Your task to perform on an android device: toggle notifications settings in the gmail app Image 0: 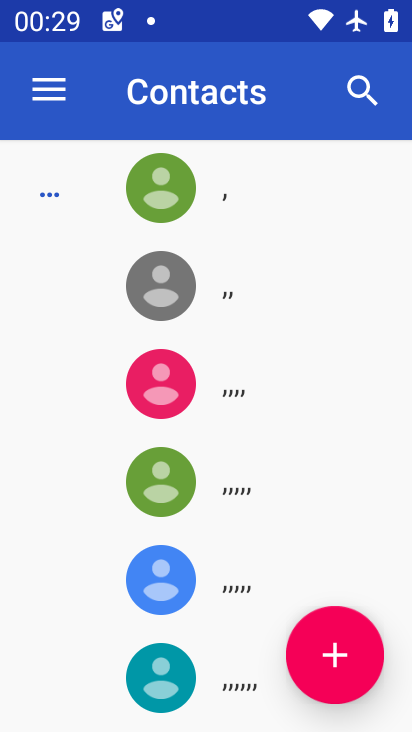
Step 0: press home button
Your task to perform on an android device: toggle notifications settings in the gmail app Image 1: 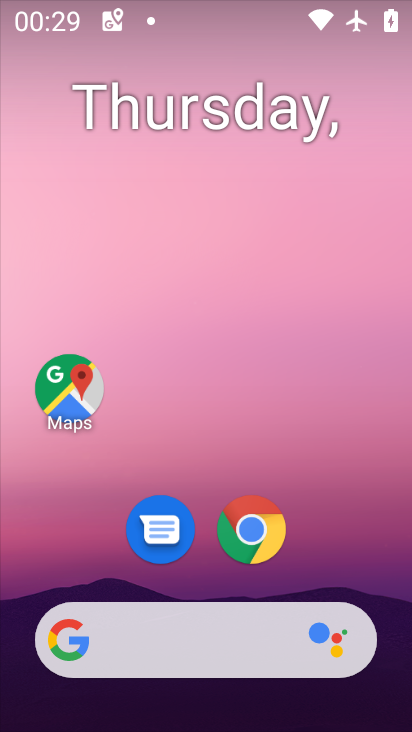
Step 1: drag from (402, 633) to (358, 152)
Your task to perform on an android device: toggle notifications settings in the gmail app Image 2: 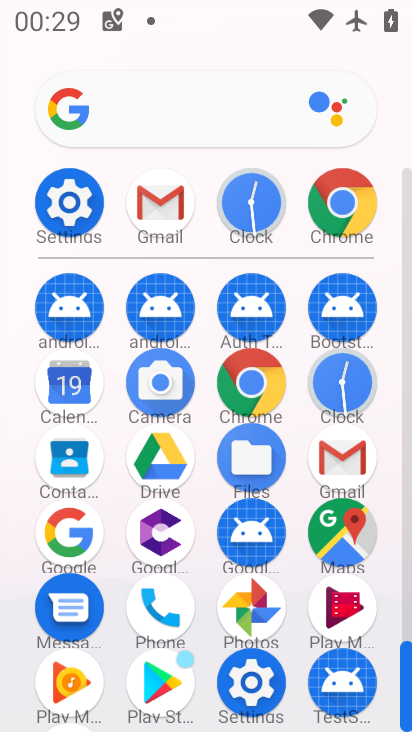
Step 2: click (340, 456)
Your task to perform on an android device: toggle notifications settings in the gmail app Image 3: 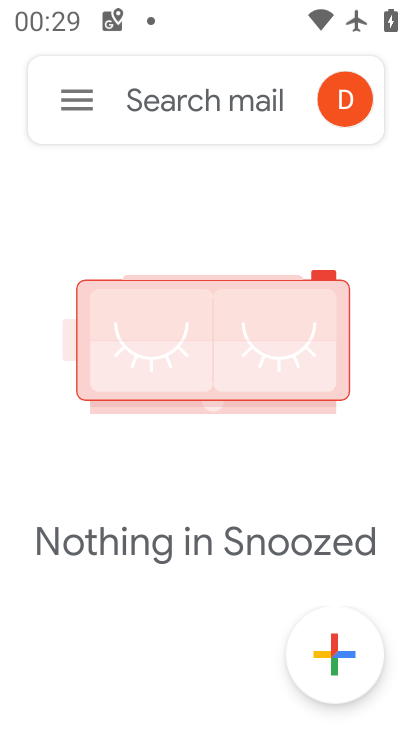
Step 3: click (75, 96)
Your task to perform on an android device: toggle notifications settings in the gmail app Image 4: 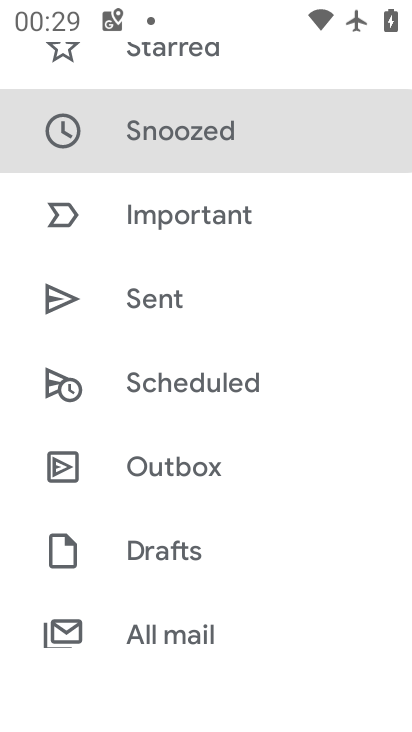
Step 4: drag from (267, 579) to (311, 288)
Your task to perform on an android device: toggle notifications settings in the gmail app Image 5: 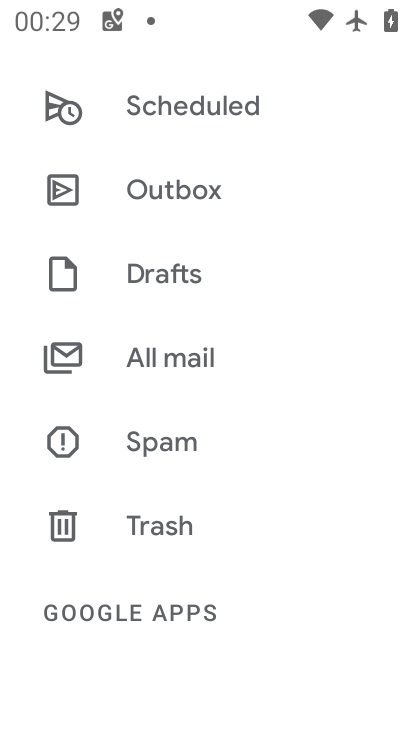
Step 5: drag from (291, 604) to (304, 182)
Your task to perform on an android device: toggle notifications settings in the gmail app Image 6: 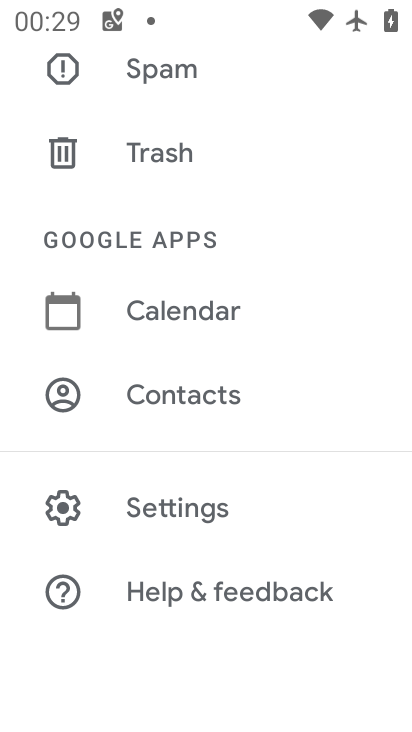
Step 6: click (167, 512)
Your task to perform on an android device: toggle notifications settings in the gmail app Image 7: 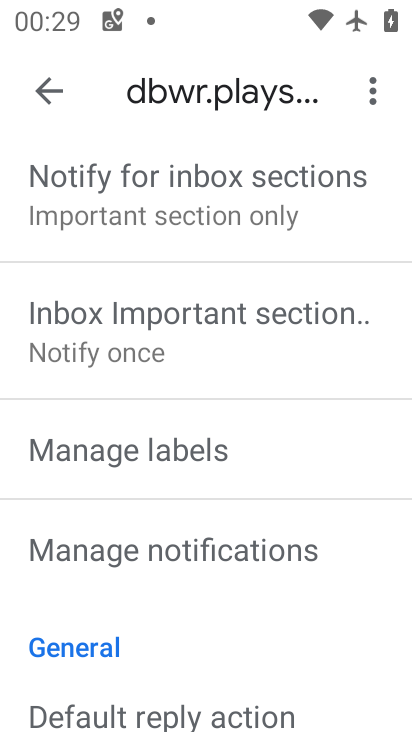
Step 7: click (155, 555)
Your task to perform on an android device: toggle notifications settings in the gmail app Image 8: 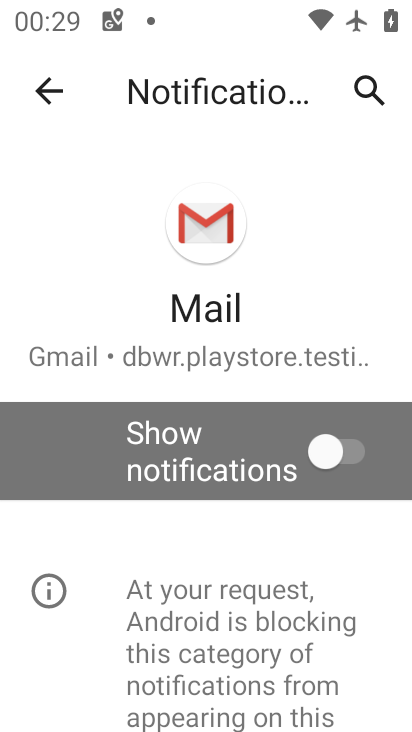
Step 8: click (348, 447)
Your task to perform on an android device: toggle notifications settings in the gmail app Image 9: 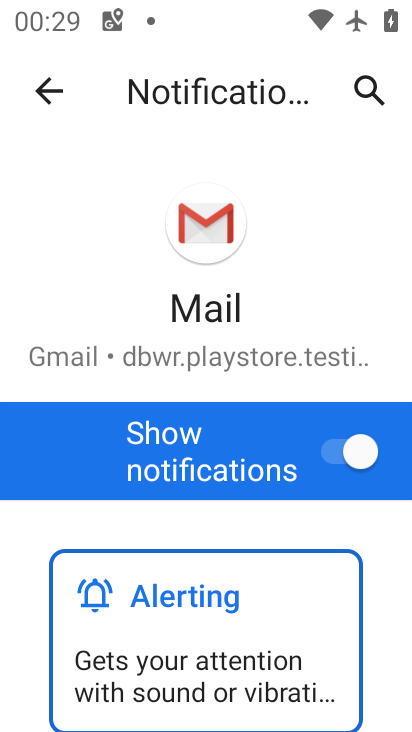
Step 9: task complete